Your task to perform on an android device: Open Google Chrome and open the bookmarks view Image 0: 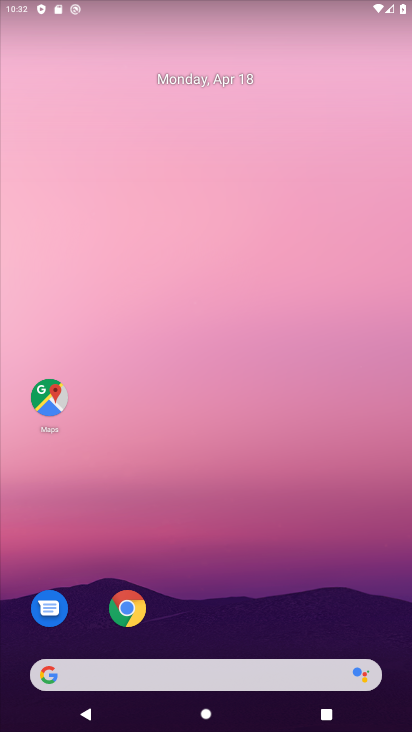
Step 0: drag from (363, 555) to (296, 162)
Your task to perform on an android device: Open Google Chrome and open the bookmarks view Image 1: 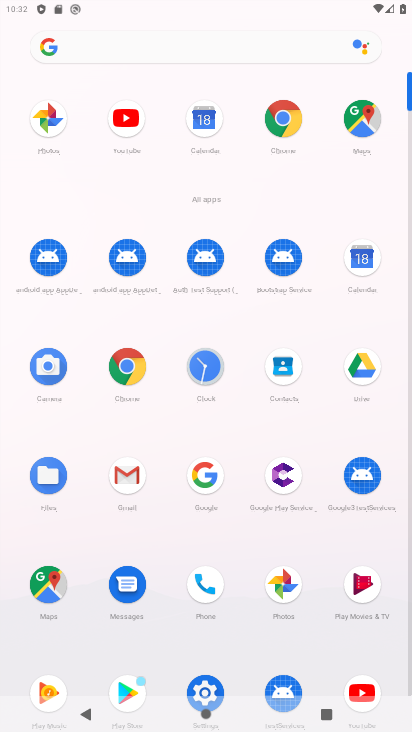
Step 1: click (288, 124)
Your task to perform on an android device: Open Google Chrome and open the bookmarks view Image 2: 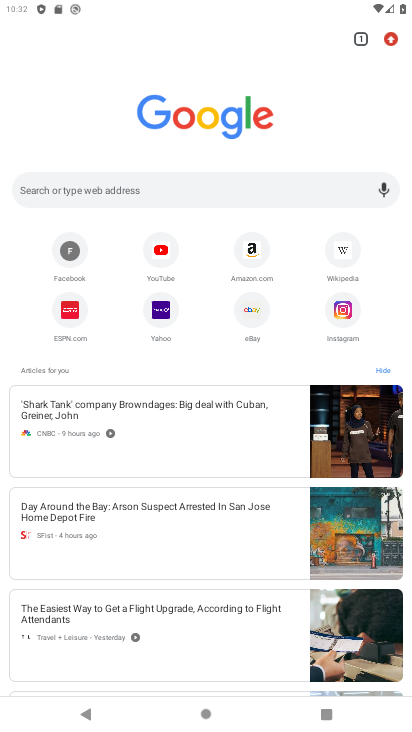
Step 2: task complete